Your task to perform on an android device: Clear the shopping cart on costco.com. Image 0: 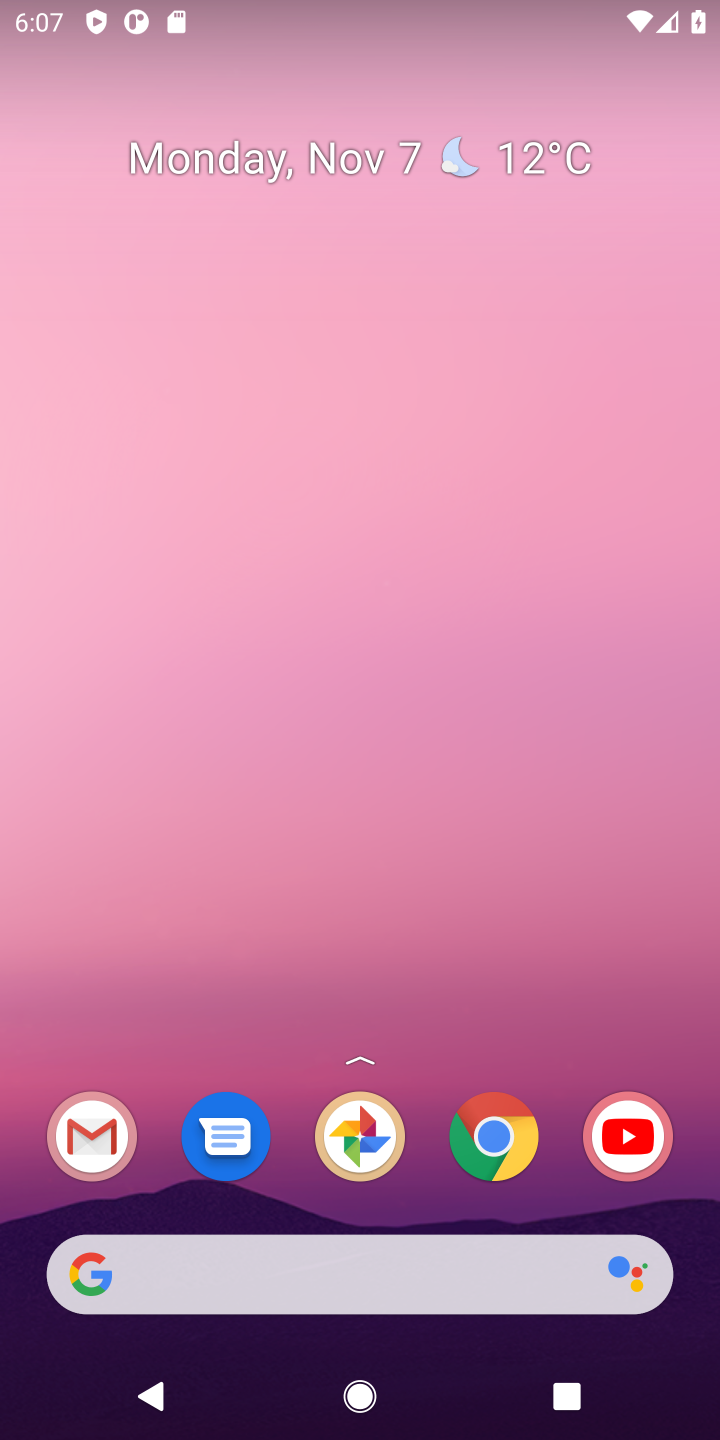
Step 0: click (334, 1250)
Your task to perform on an android device: Clear the shopping cart on costco.com. Image 1: 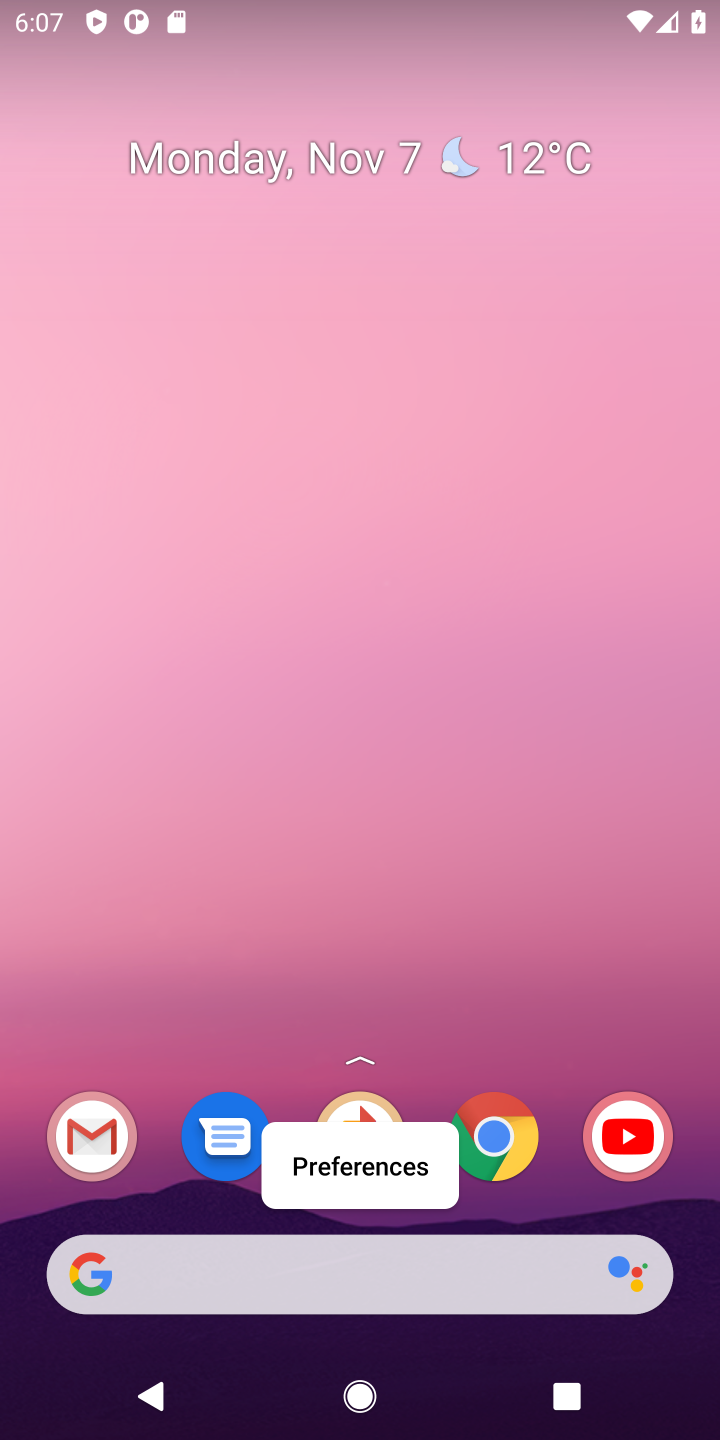
Step 1: click (166, 1265)
Your task to perform on an android device: Clear the shopping cart on costco.com. Image 2: 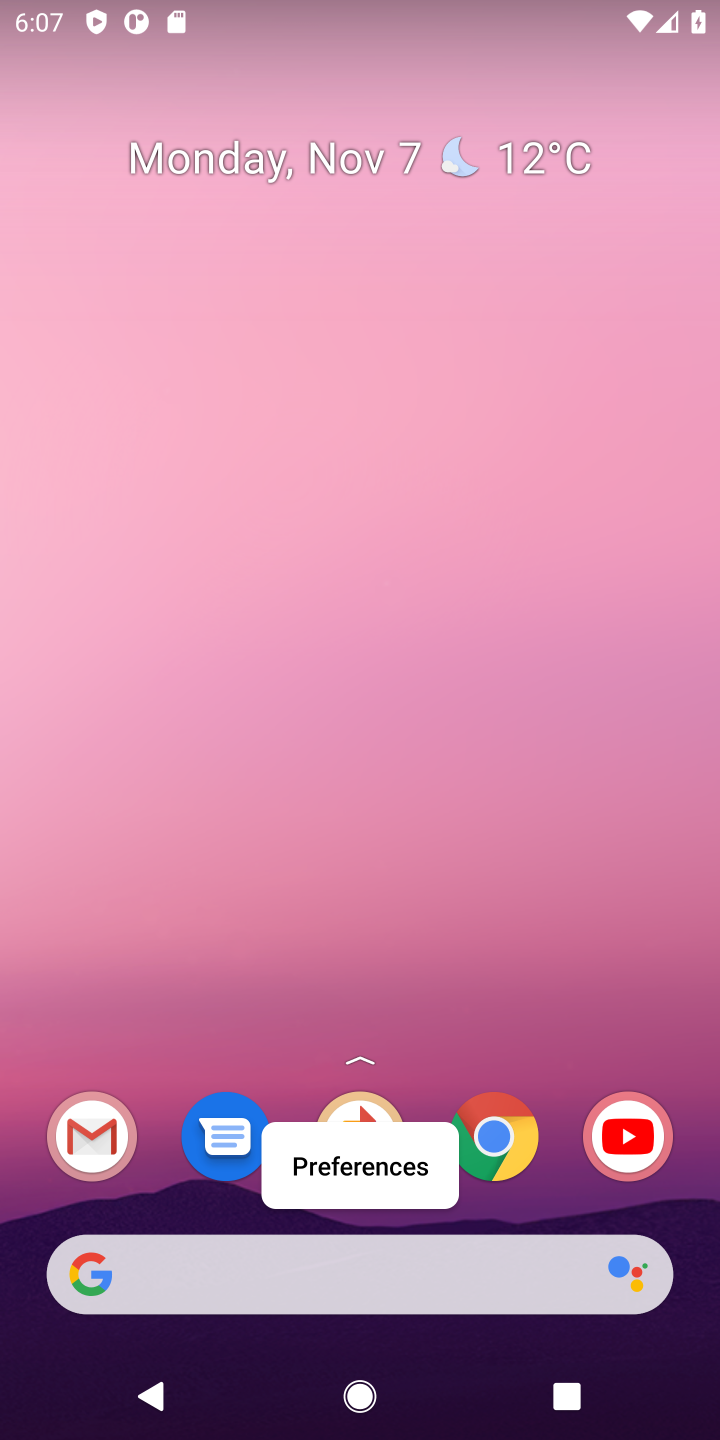
Step 2: click (180, 1268)
Your task to perform on an android device: Clear the shopping cart on costco.com. Image 3: 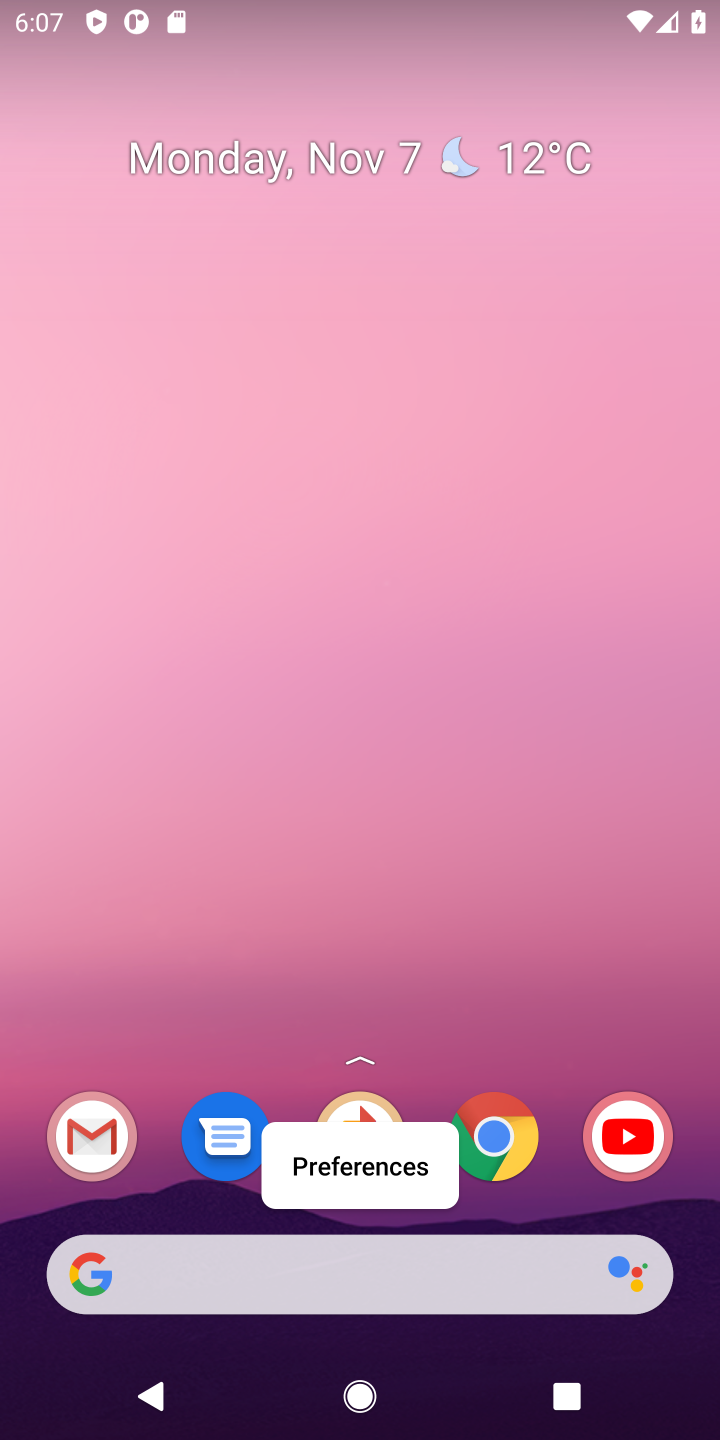
Step 3: click (257, 1282)
Your task to perform on an android device: Clear the shopping cart on costco.com. Image 4: 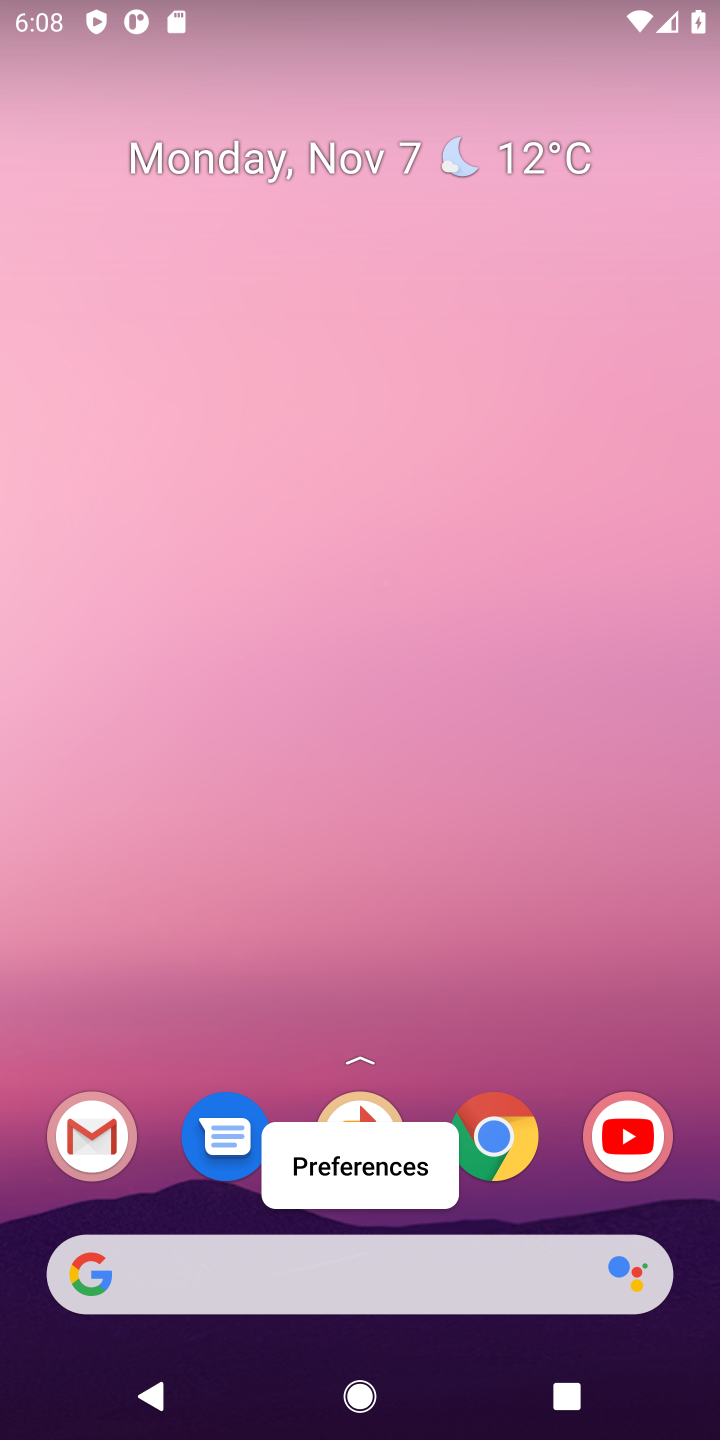
Step 4: click (78, 1127)
Your task to perform on an android device: Clear the shopping cart on costco.com. Image 5: 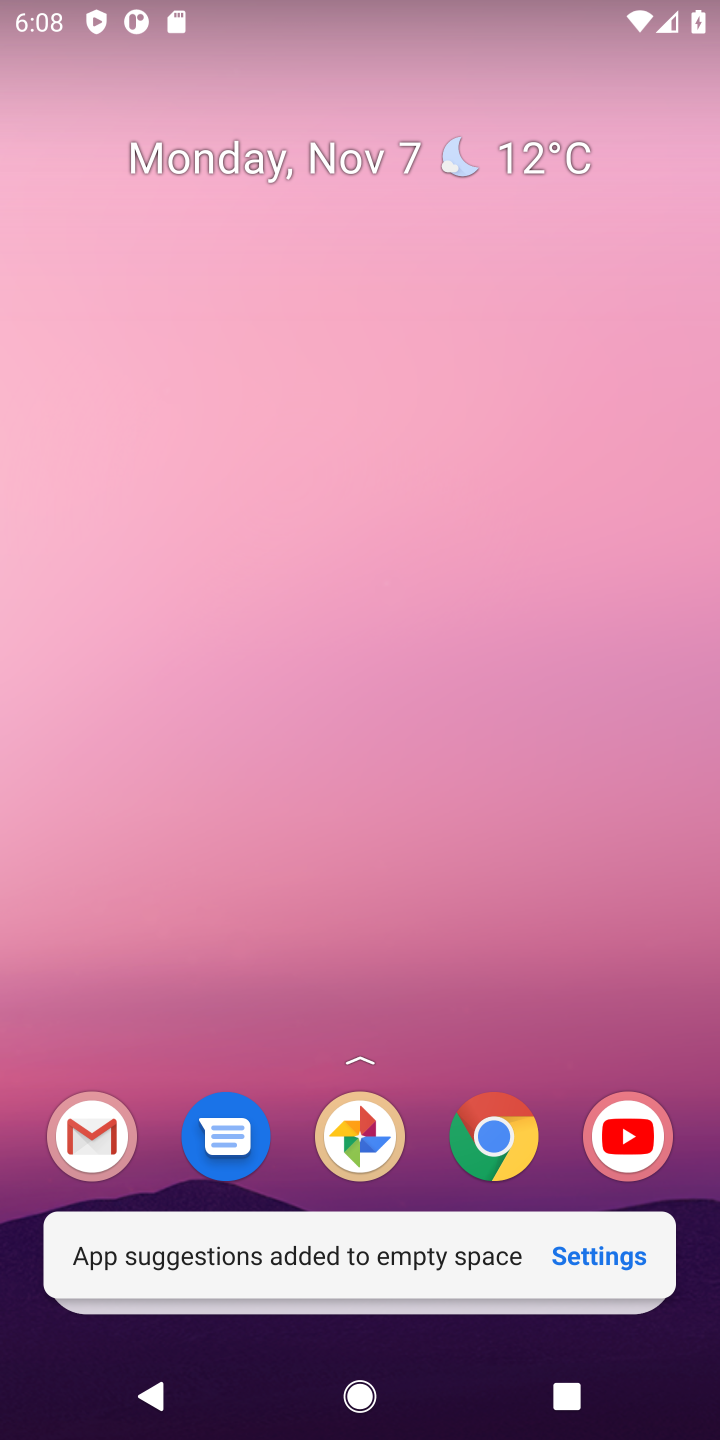
Step 5: click (592, 1248)
Your task to perform on an android device: Clear the shopping cart on costco.com. Image 6: 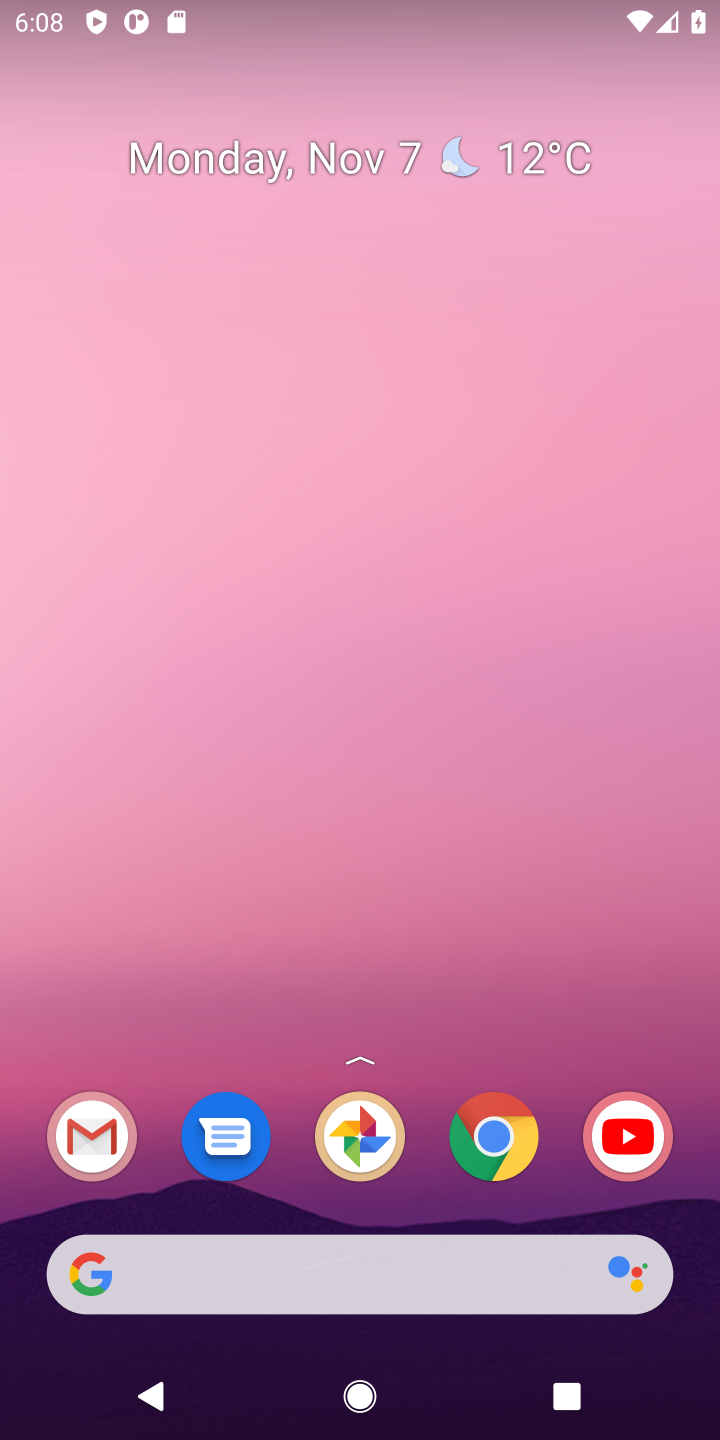
Step 6: click (485, 1142)
Your task to perform on an android device: Clear the shopping cart on costco.com. Image 7: 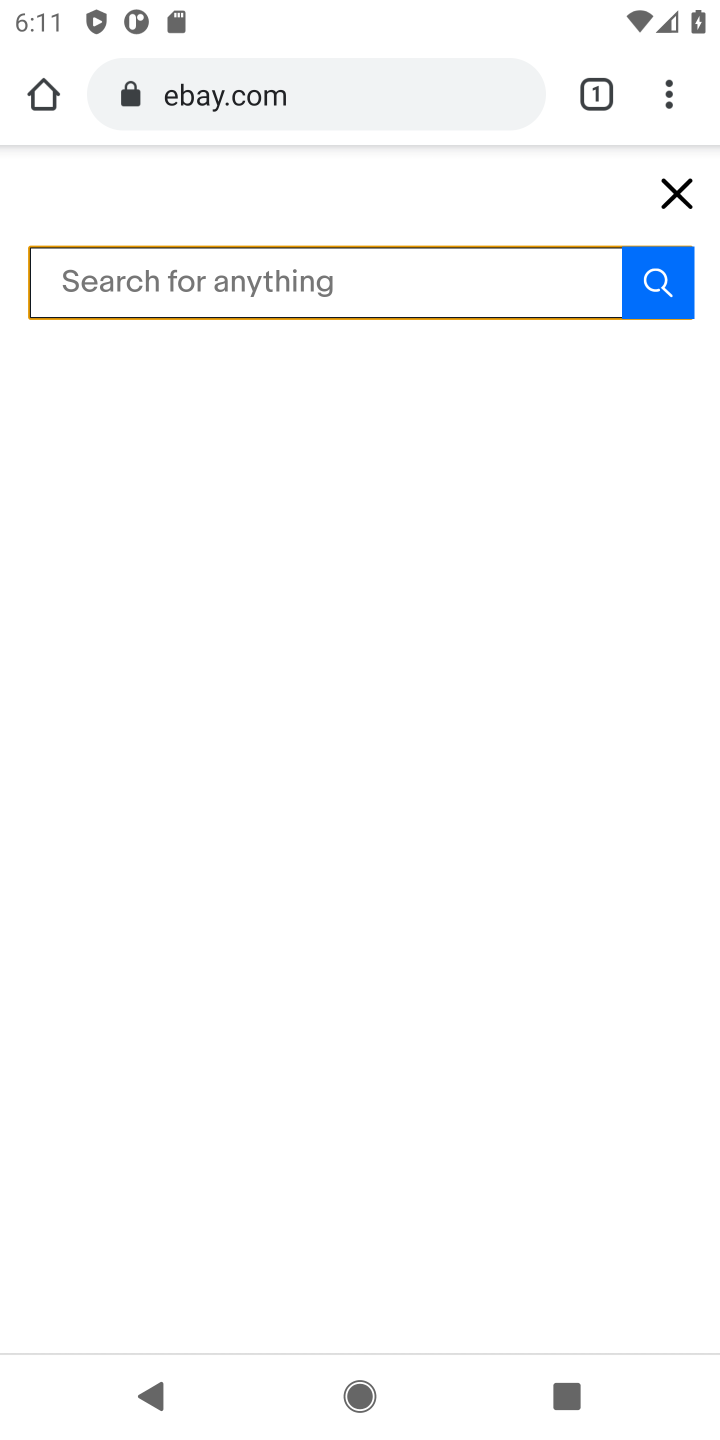
Step 7: press home button
Your task to perform on an android device: Clear the shopping cart on costco.com. Image 8: 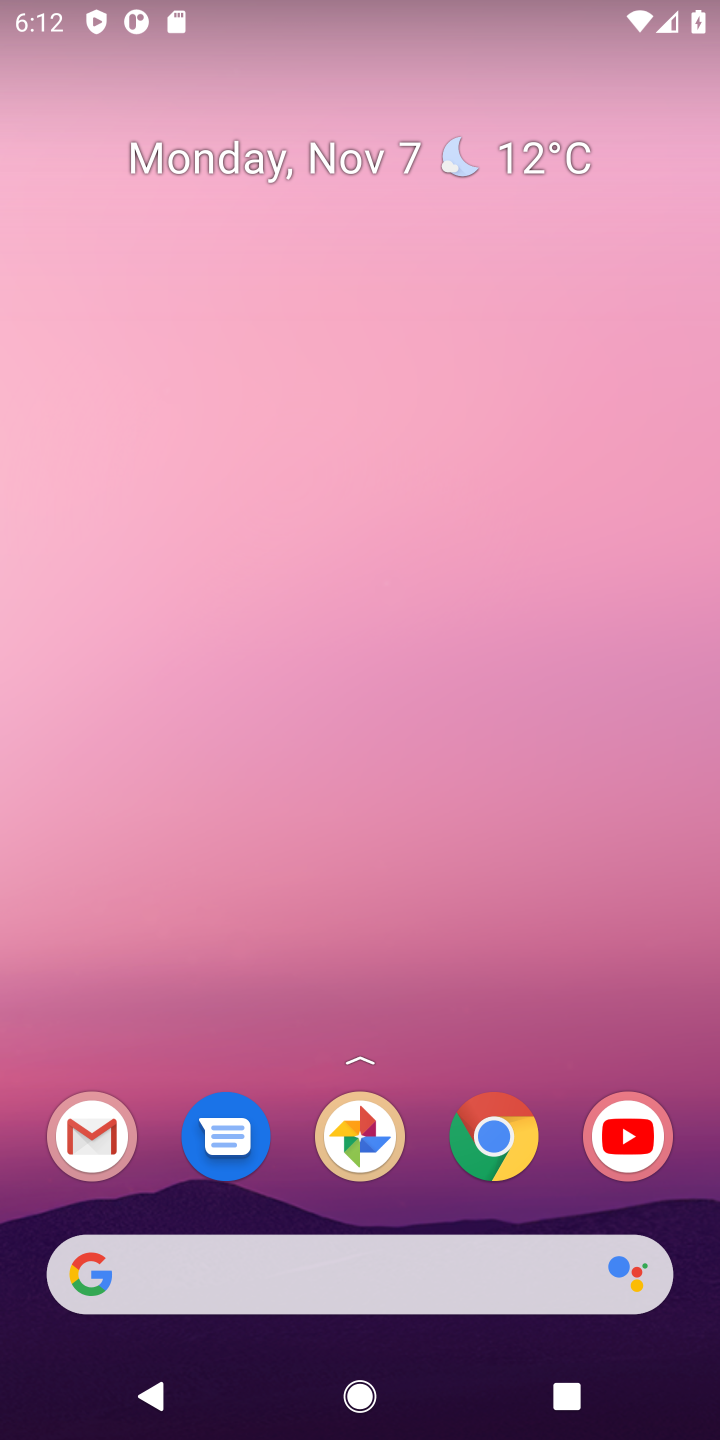
Step 8: click (221, 1286)
Your task to perform on an android device: Clear the shopping cart on costco.com. Image 9: 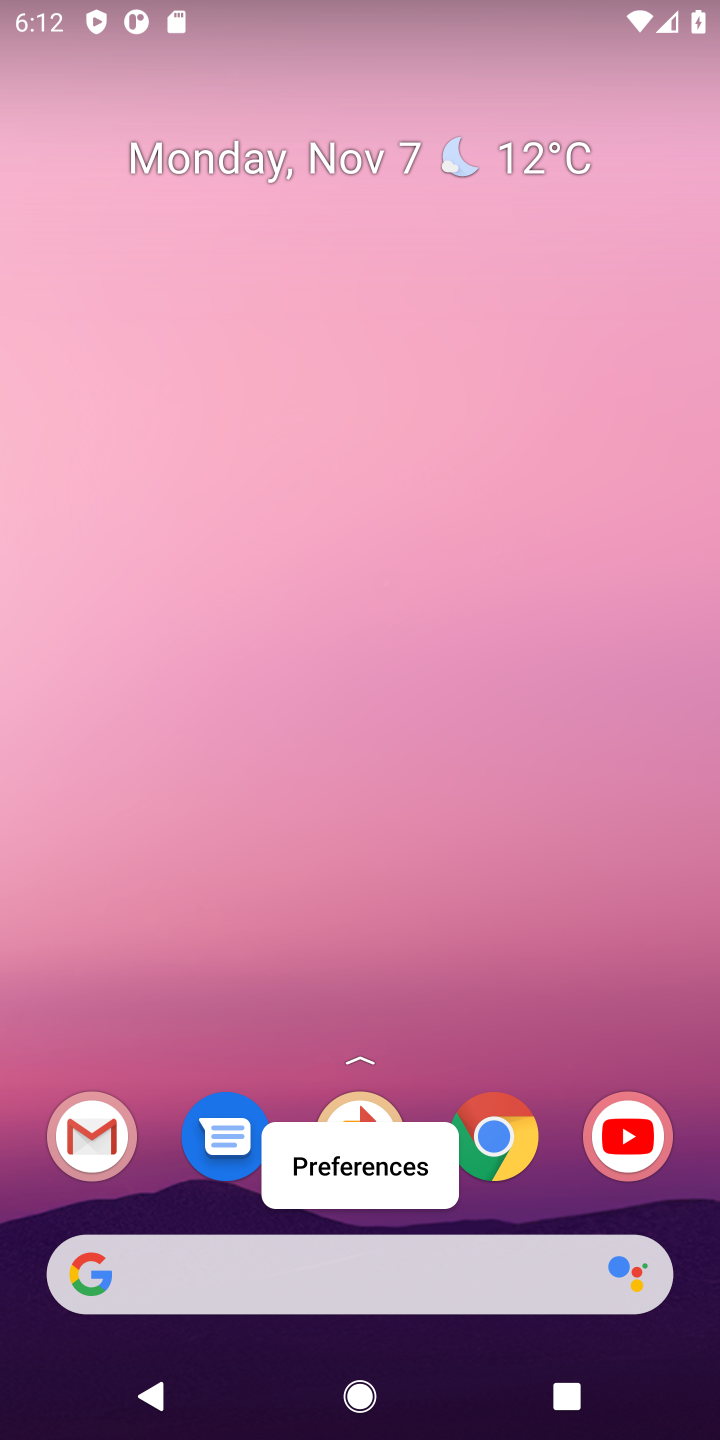
Step 9: click (494, 1144)
Your task to perform on an android device: Clear the shopping cart on costco.com. Image 10: 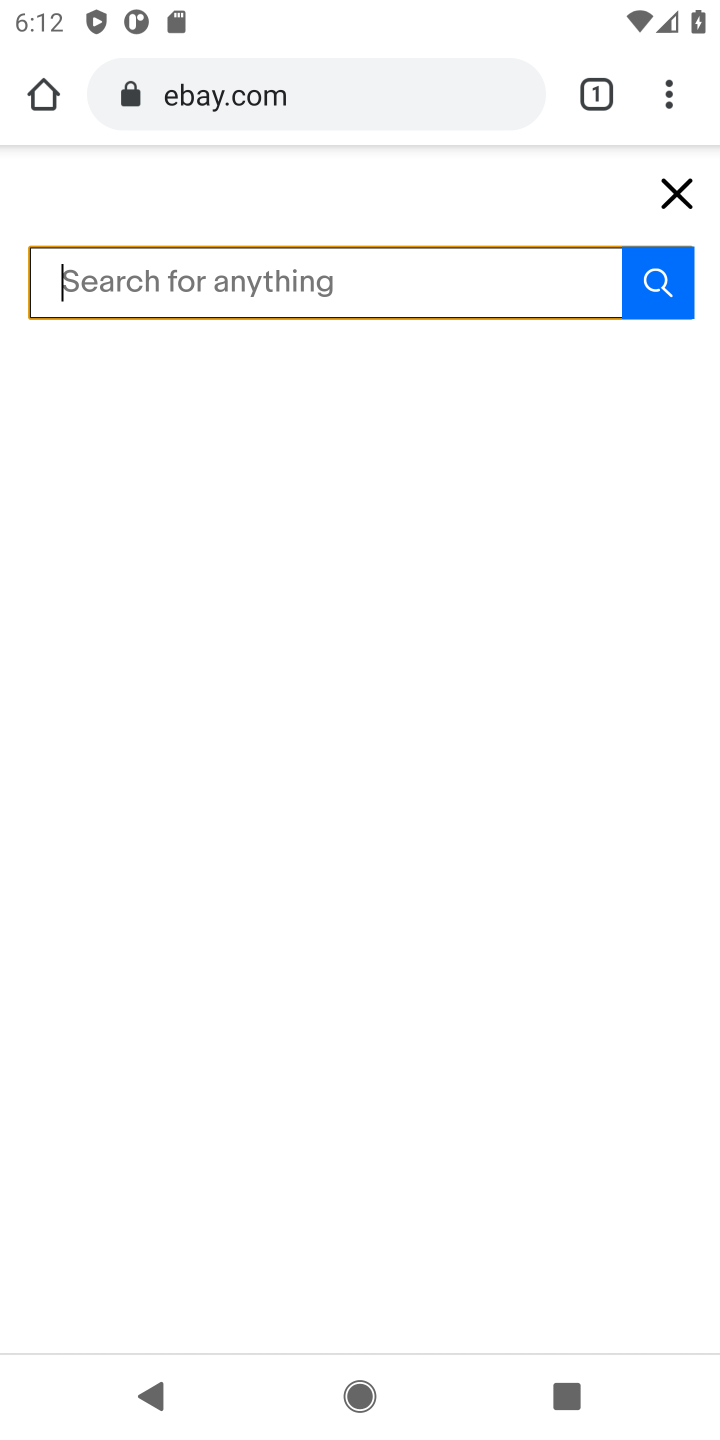
Step 10: click (34, 95)
Your task to perform on an android device: Clear the shopping cart on costco.com. Image 11: 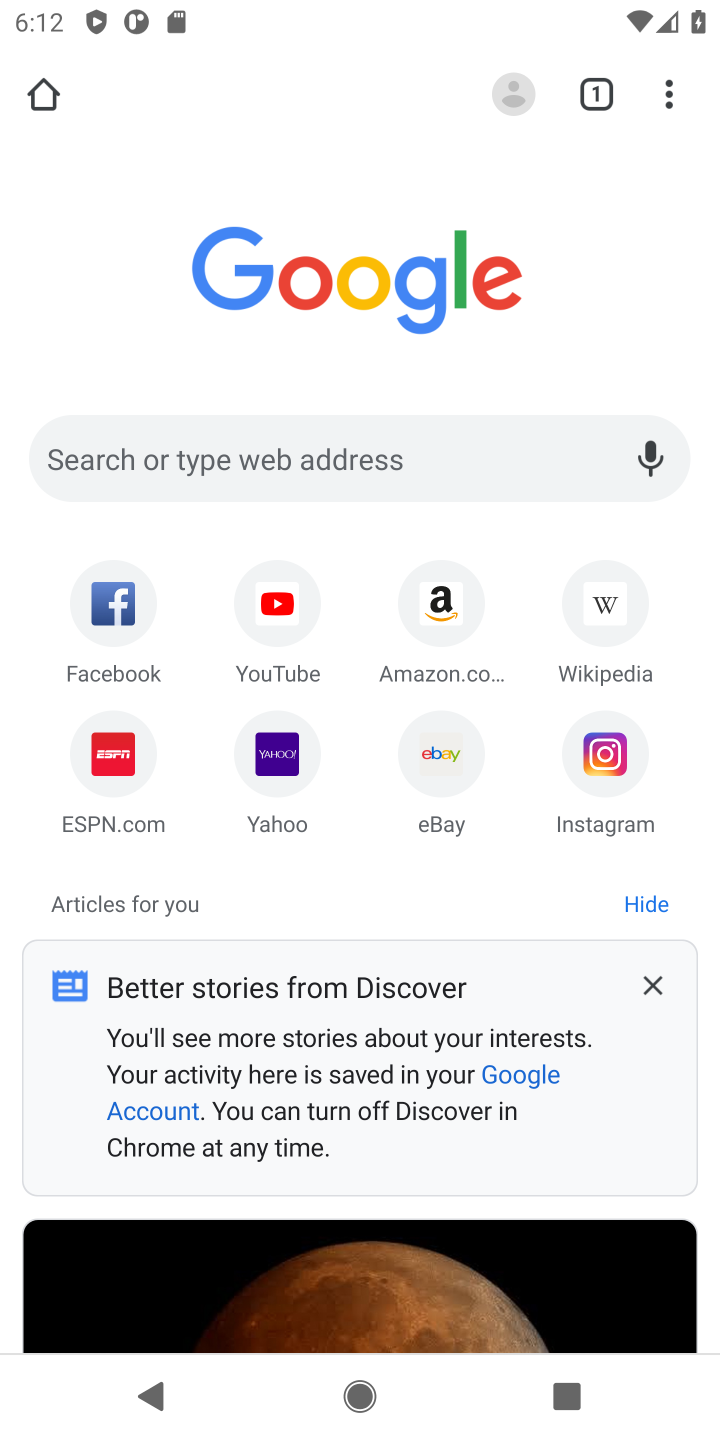
Step 11: click (253, 461)
Your task to perform on an android device: Clear the shopping cart on costco.com. Image 12: 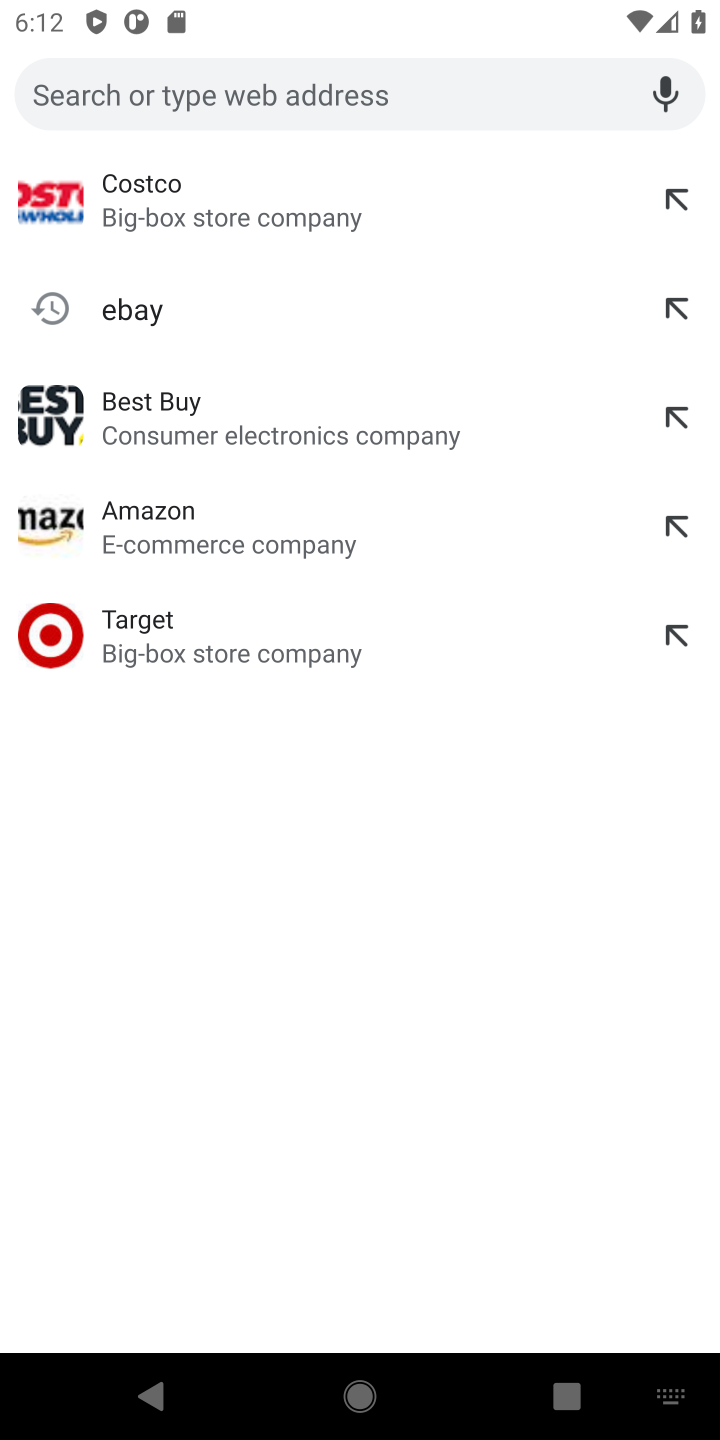
Step 12: click (141, 170)
Your task to perform on an android device: Clear the shopping cart on costco.com. Image 13: 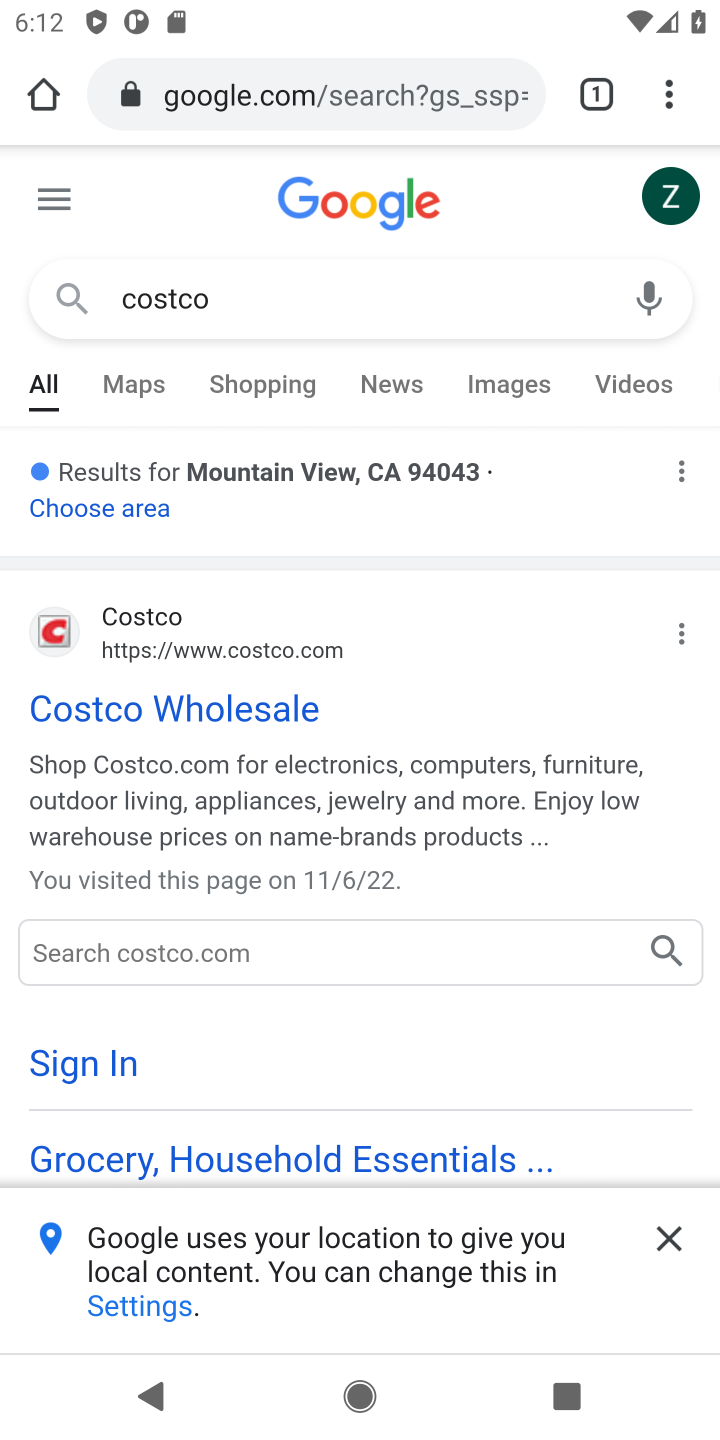
Step 13: click (114, 612)
Your task to perform on an android device: Clear the shopping cart on costco.com. Image 14: 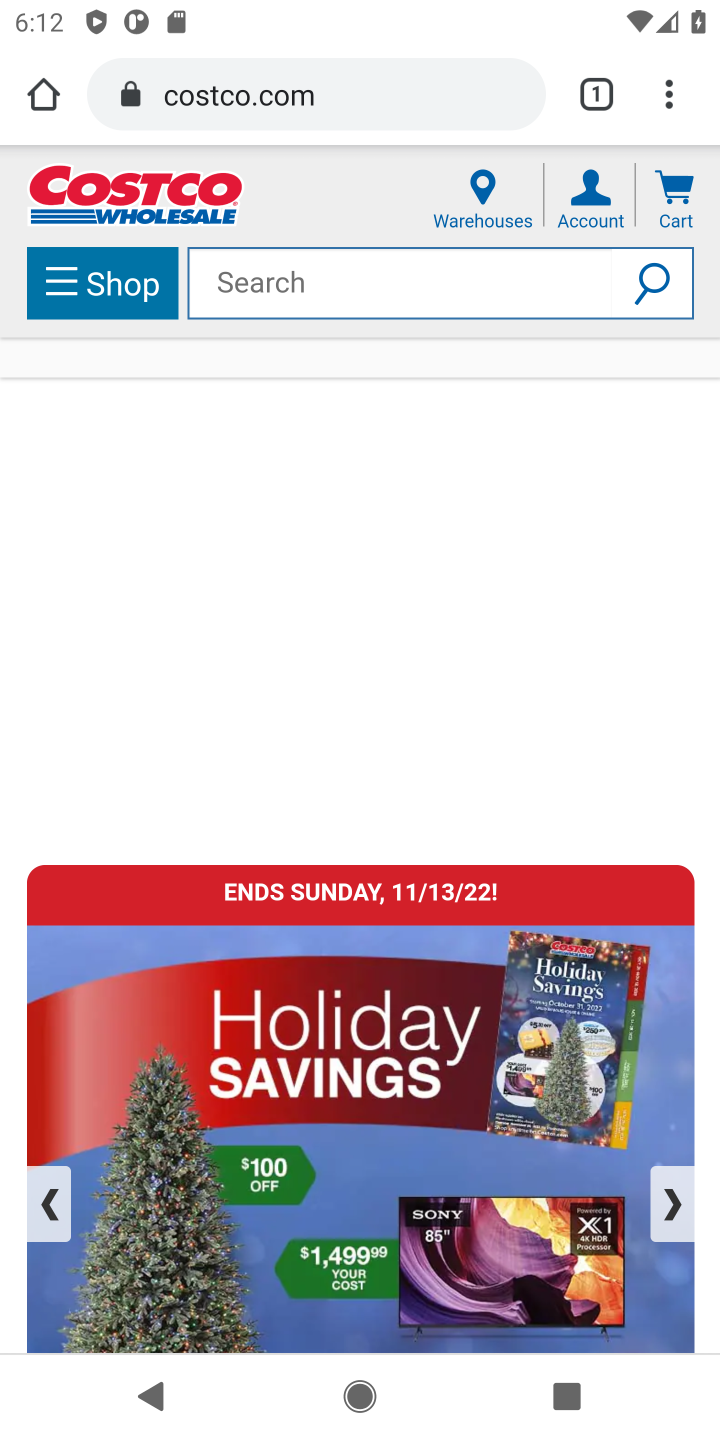
Step 14: click (341, 263)
Your task to perform on an android device: Clear the shopping cart on costco.com. Image 15: 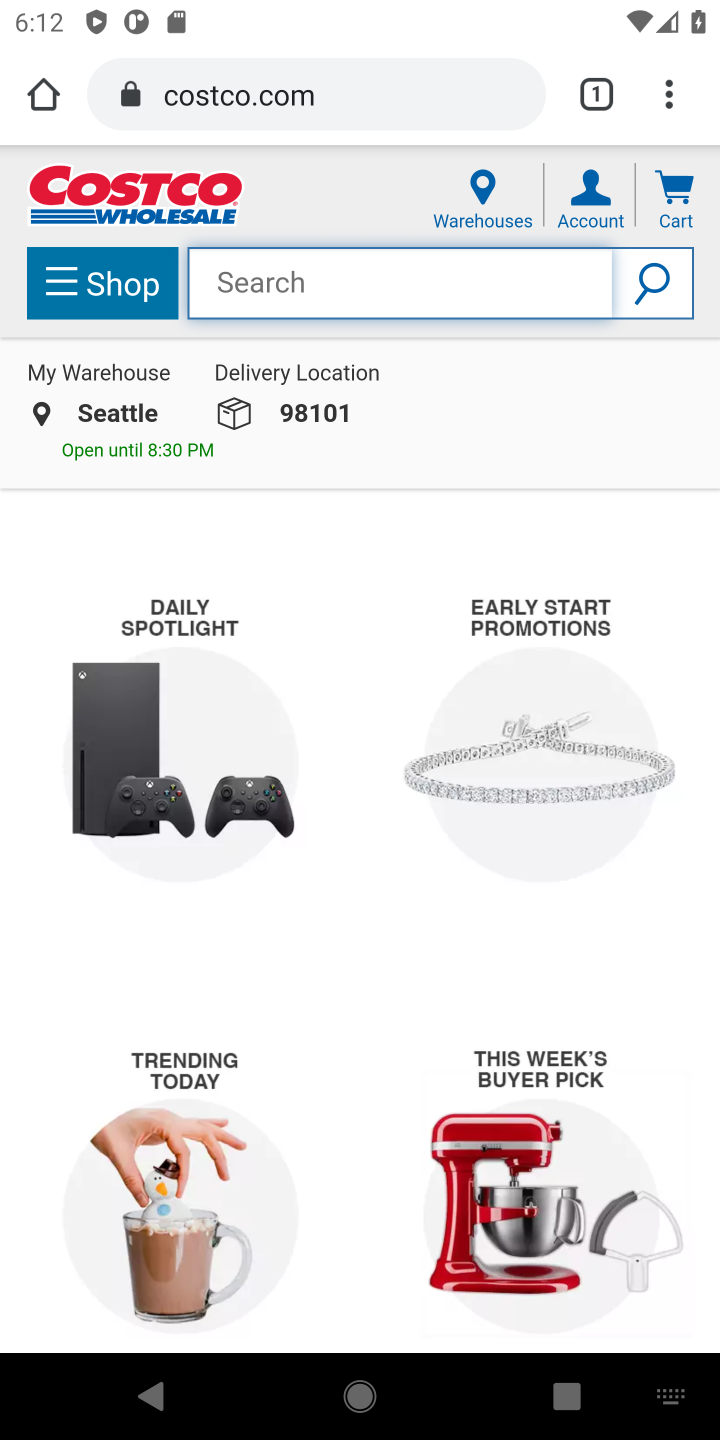
Step 15: task complete